Your task to perform on an android device: Open Chrome and go to settings Image 0: 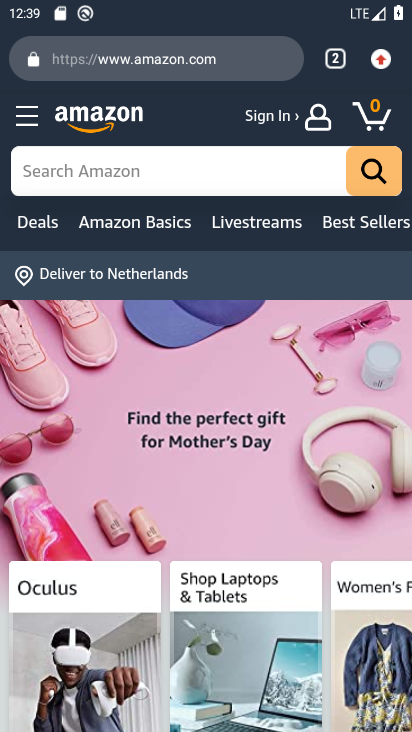
Step 0: press home button
Your task to perform on an android device: Open Chrome and go to settings Image 1: 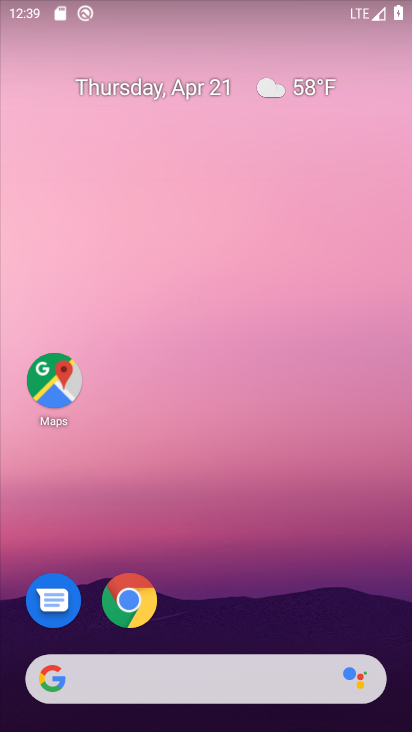
Step 1: click (137, 595)
Your task to perform on an android device: Open Chrome and go to settings Image 2: 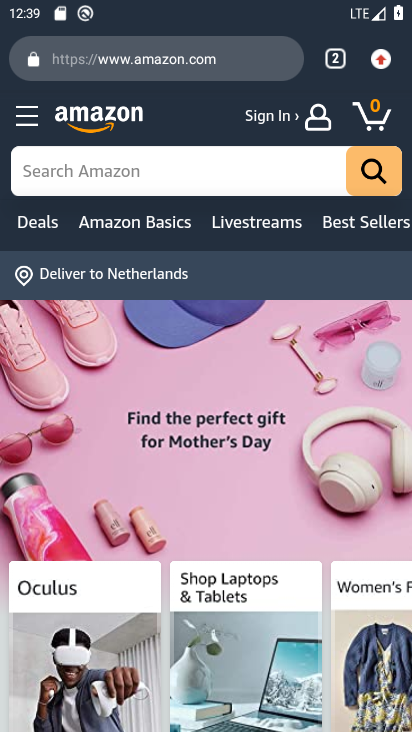
Step 2: click (380, 57)
Your task to perform on an android device: Open Chrome and go to settings Image 3: 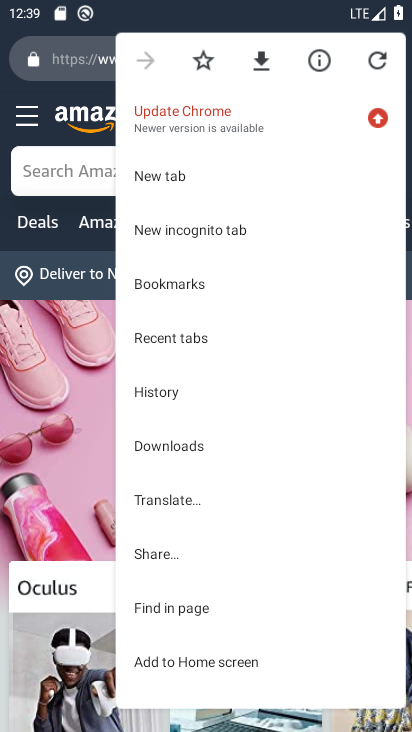
Step 3: drag from (259, 508) to (247, 220)
Your task to perform on an android device: Open Chrome and go to settings Image 4: 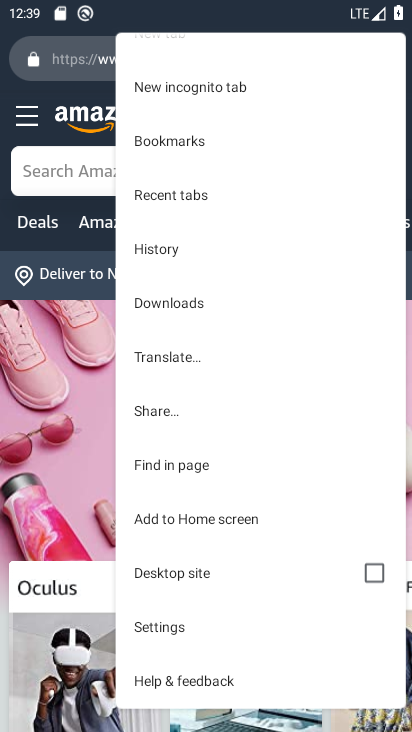
Step 4: click (190, 621)
Your task to perform on an android device: Open Chrome and go to settings Image 5: 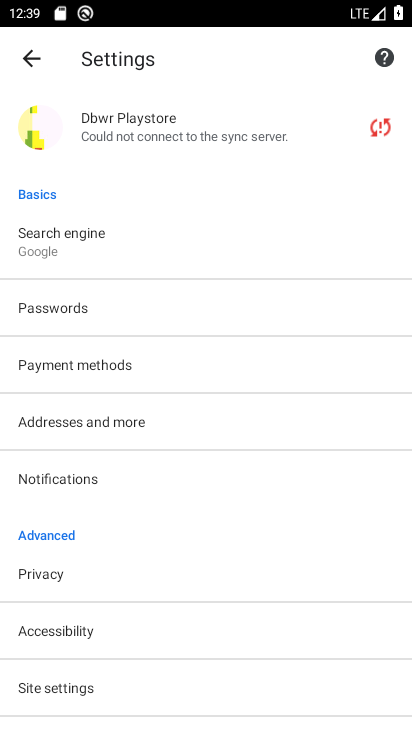
Step 5: task complete